Your task to perform on an android device: set the stopwatch Image 0: 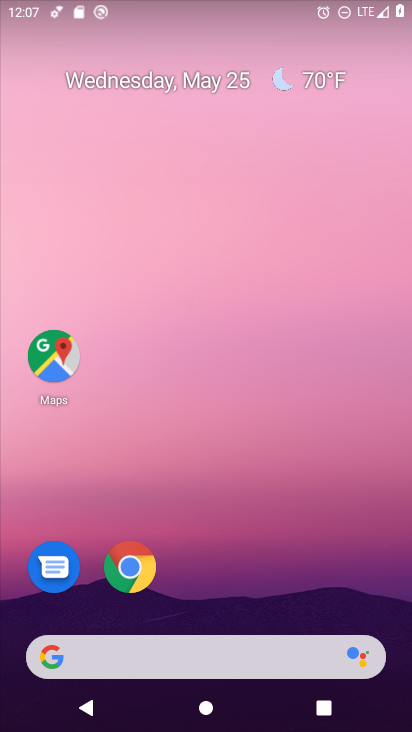
Step 0: press home button
Your task to perform on an android device: set the stopwatch Image 1: 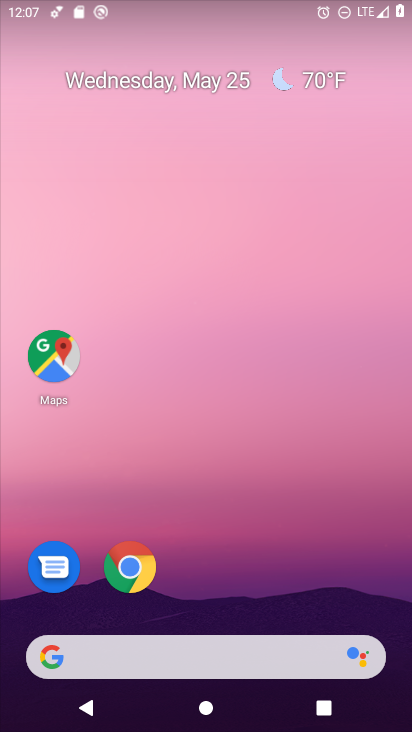
Step 1: drag from (396, 673) to (407, 201)
Your task to perform on an android device: set the stopwatch Image 2: 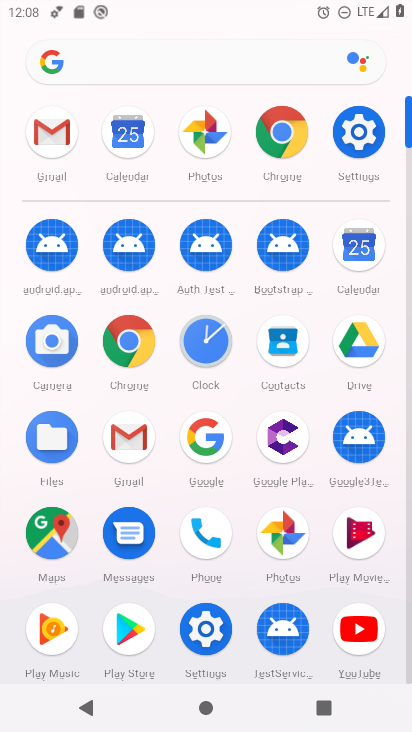
Step 2: click (353, 145)
Your task to perform on an android device: set the stopwatch Image 3: 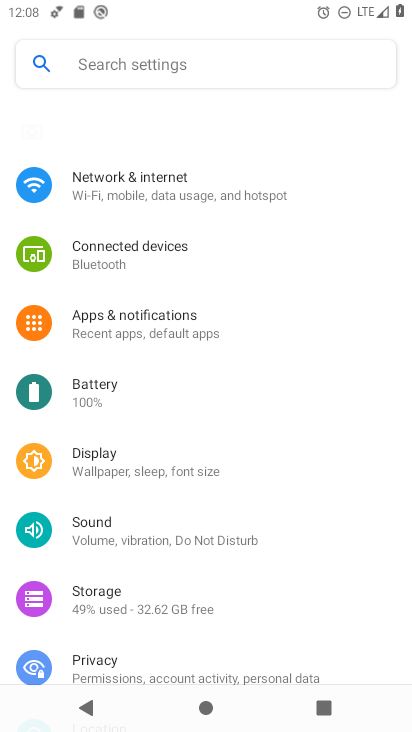
Step 3: press back button
Your task to perform on an android device: set the stopwatch Image 4: 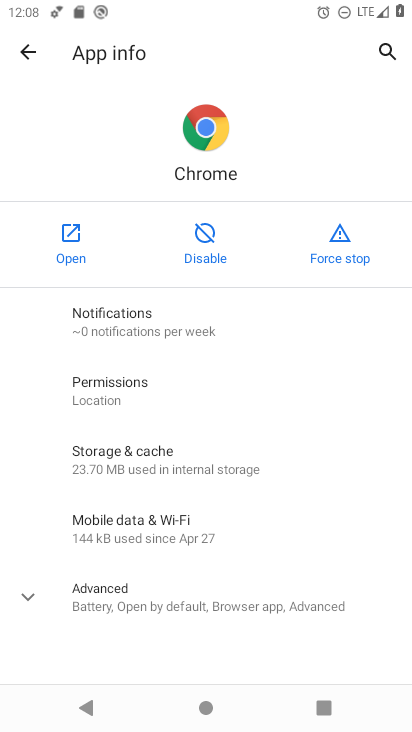
Step 4: press home button
Your task to perform on an android device: set the stopwatch Image 5: 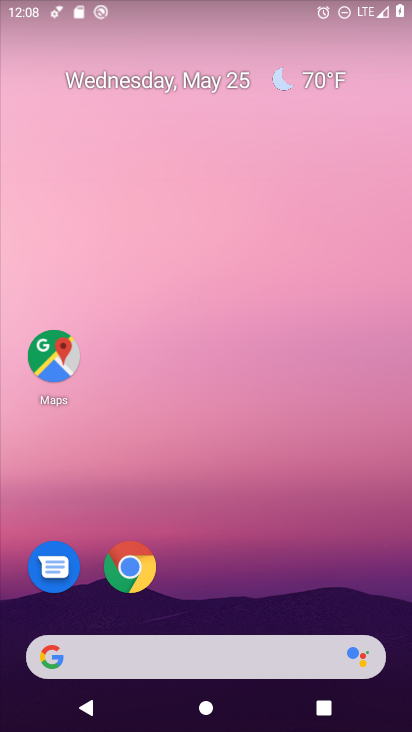
Step 5: drag from (392, 705) to (389, 166)
Your task to perform on an android device: set the stopwatch Image 6: 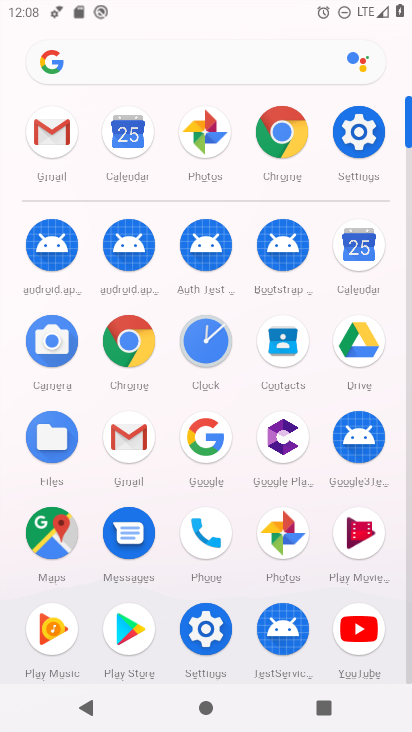
Step 6: click (205, 344)
Your task to perform on an android device: set the stopwatch Image 7: 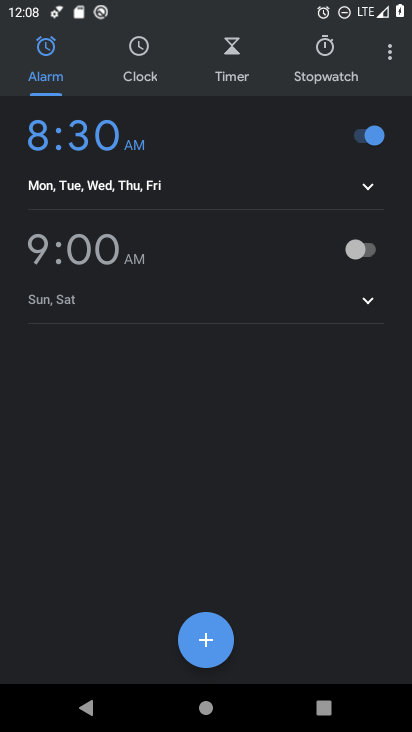
Step 7: click (332, 40)
Your task to perform on an android device: set the stopwatch Image 8: 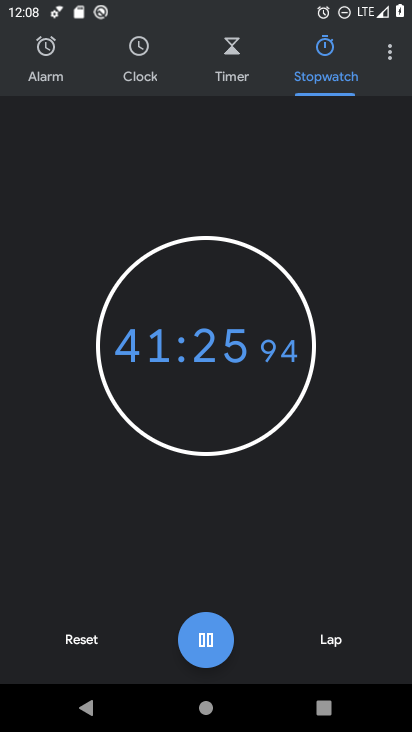
Step 8: click (99, 645)
Your task to perform on an android device: set the stopwatch Image 9: 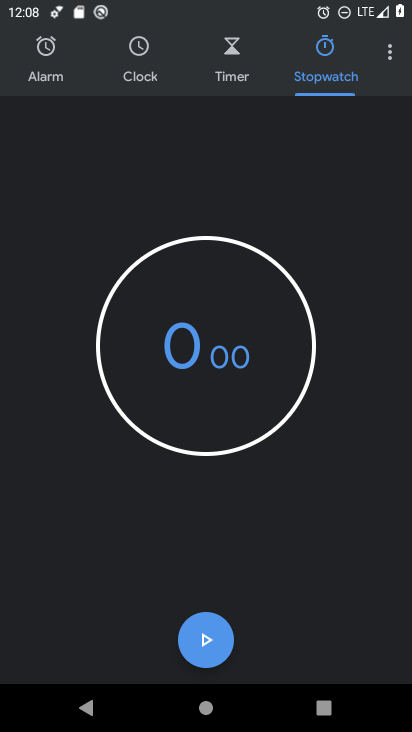
Step 9: click (191, 630)
Your task to perform on an android device: set the stopwatch Image 10: 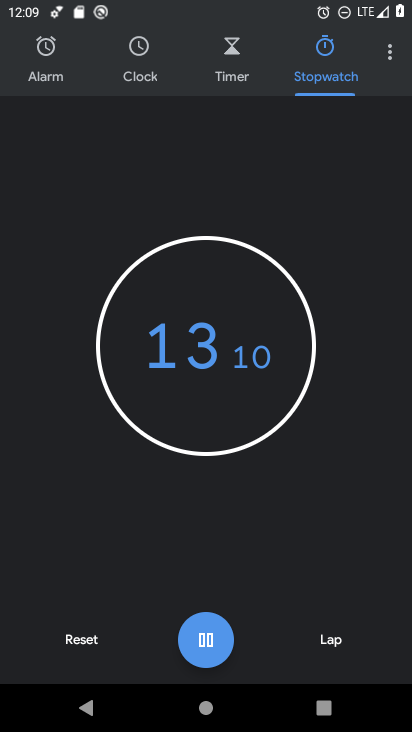
Step 10: task complete